Your task to perform on an android device: Go to CNN.com Image 0: 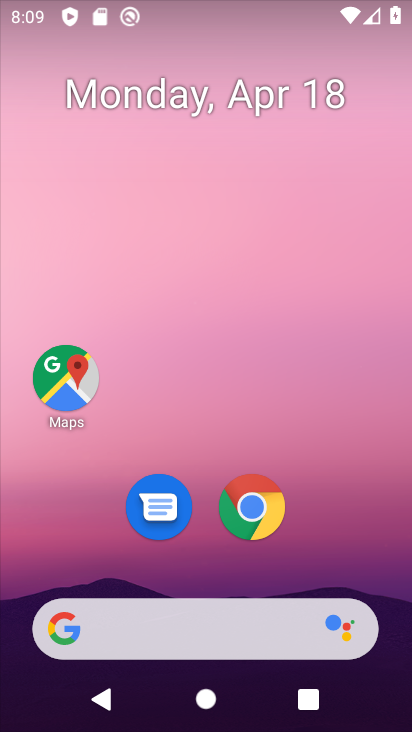
Step 0: click (256, 506)
Your task to perform on an android device: Go to CNN.com Image 1: 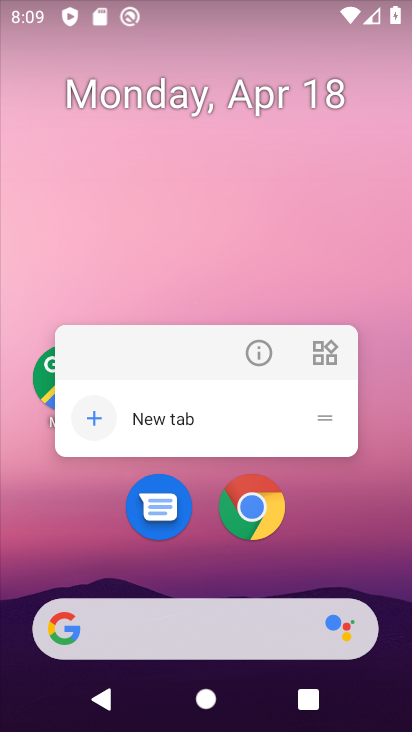
Step 1: click (256, 512)
Your task to perform on an android device: Go to CNN.com Image 2: 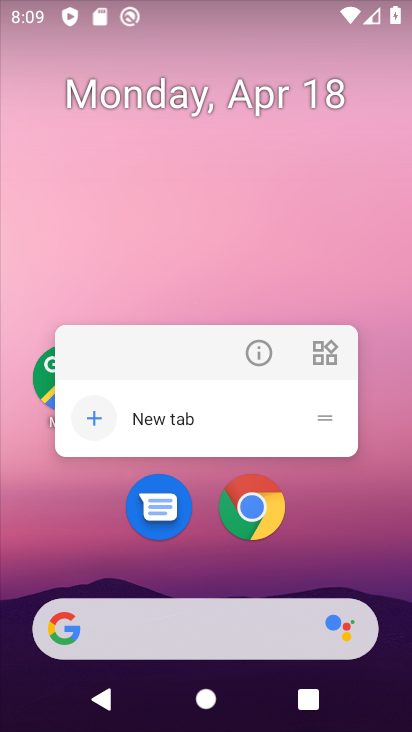
Step 2: click (256, 512)
Your task to perform on an android device: Go to CNN.com Image 3: 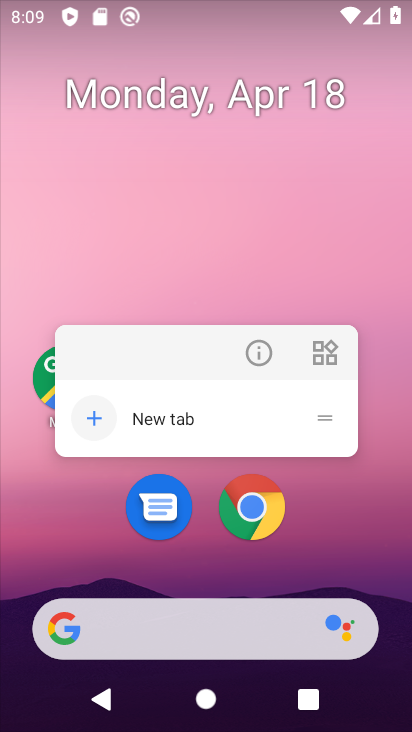
Step 3: click (256, 512)
Your task to perform on an android device: Go to CNN.com Image 4: 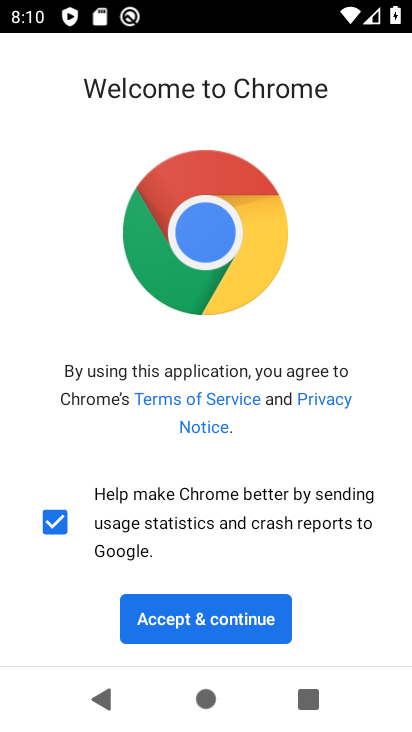
Step 4: click (204, 606)
Your task to perform on an android device: Go to CNN.com Image 5: 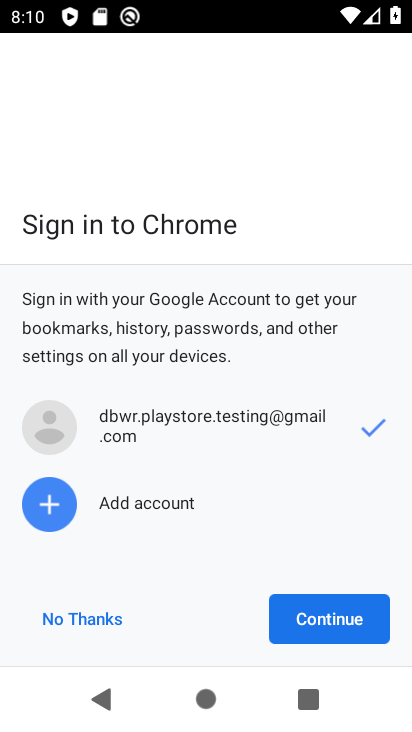
Step 5: click (84, 622)
Your task to perform on an android device: Go to CNN.com Image 6: 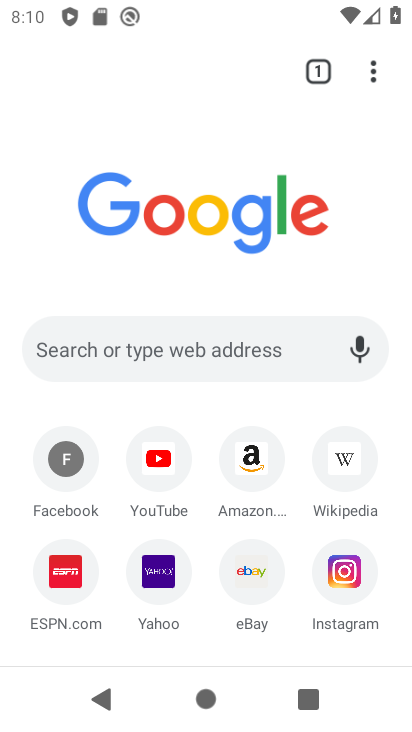
Step 6: click (95, 345)
Your task to perform on an android device: Go to CNN.com Image 7: 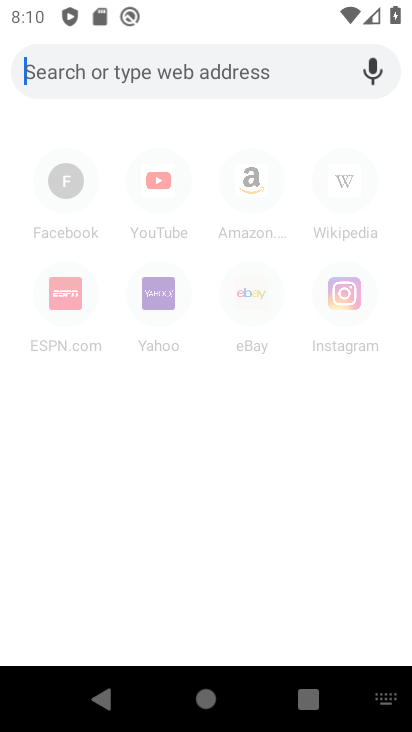
Step 7: type "CNN.com"
Your task to perform on an android device: Go to CNN.com Image 8: 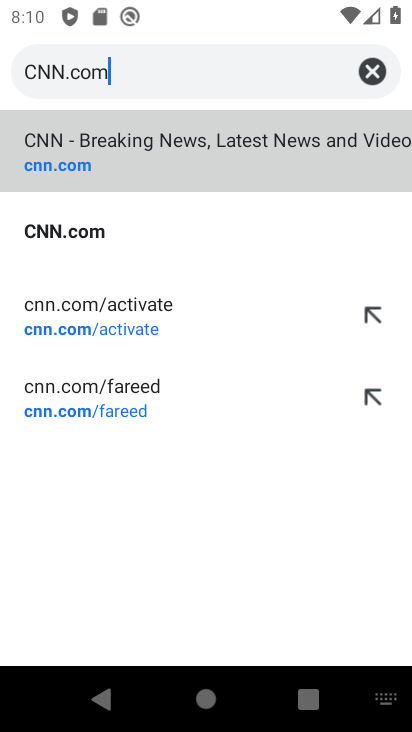
Step 8: click (74, 235)
Your task to perform on an android device: Go to CNN.com Image 9: 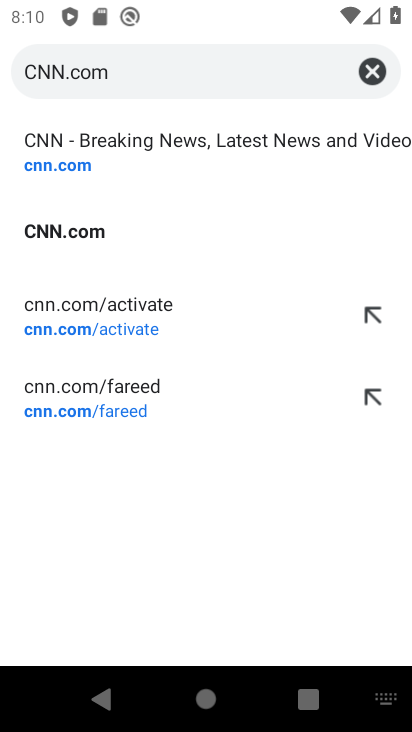
Step 9: click (66, 237)
Your task to perform on an android device: Go to CNN.com Image 10: 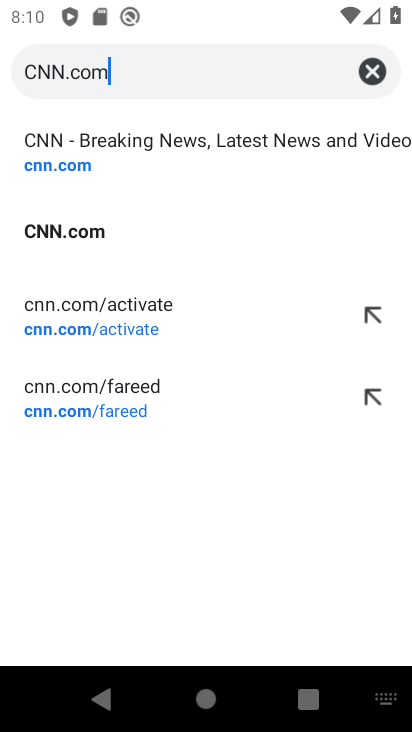
Step 10: click (80, 230)
Your task to perform on an android device: Go to CNN.com Image 11: 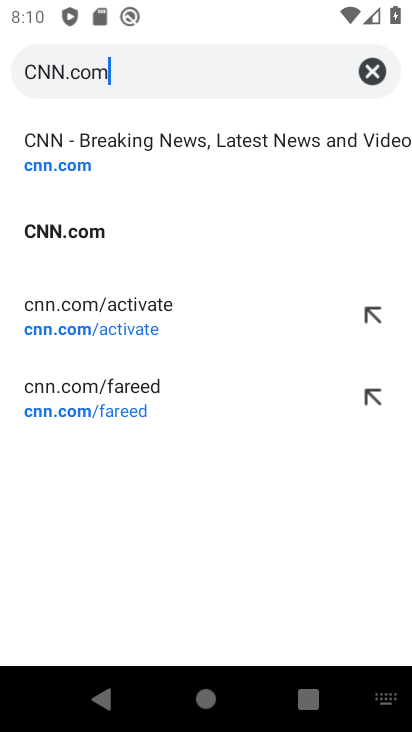
Step 11: click (76, 147)
Your task to perform on an android device: Go to CNN.com Image 12: 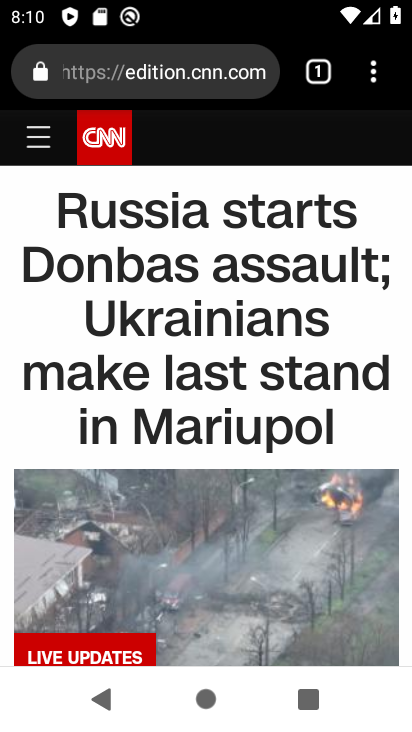
Step 12: task complete